Your task to perform on an android device: turn off javascript in the chrome app Image 0: 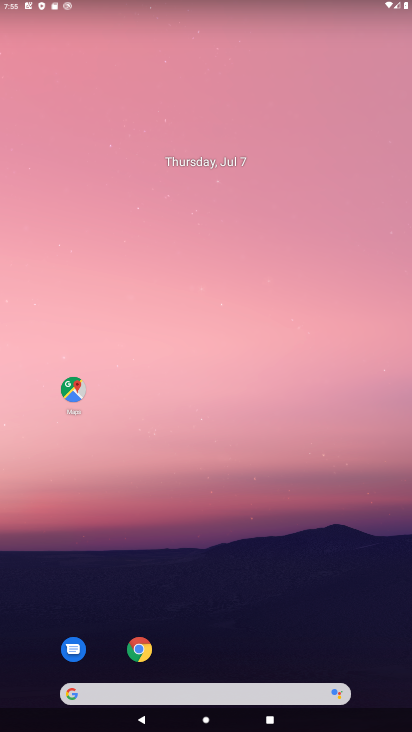
Step 0: click (187, 225)
Your task to perform on an android device: turn off javascript in the chrome app Image 1: 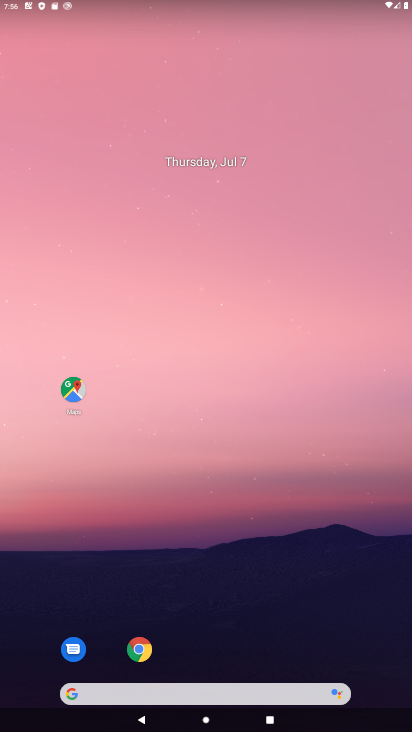
Step 1: drag from (220, 612) to (115, 128)
Your task to perform on an android device: turn off javascript in the chrome app Image 2: 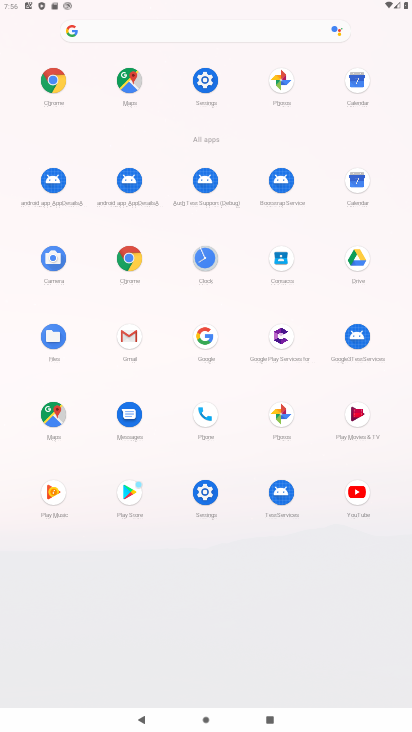
Step 2: click (131, 257)
Your task to perform on an android device: turn off javascript in the chrome app Image 3: 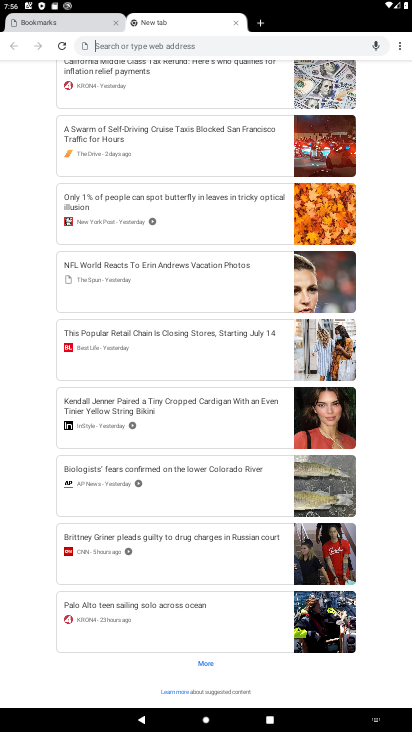
Step 3: drag from (205, 211) to (151, 572)
Your task to perform on an android device: turn off javascript in the chrome app Image 4: 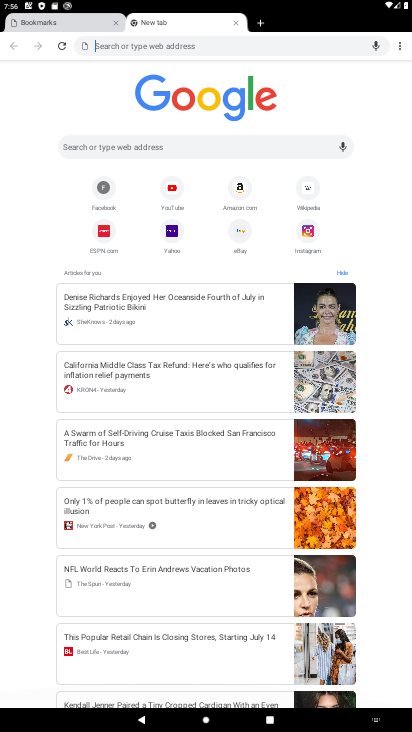
Step 4: drag from (150, 233) to (220, 671)
Your task to perform on an android device: turn off javascript in the chrome app Image 5: 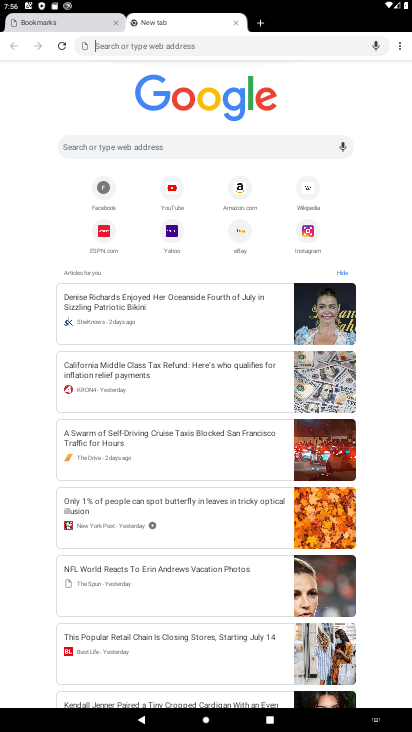
Step 5: drag from (227, 245) to (233, 639)
Your task to perform on an android device: turn off javascript in the chrome app Image 6: 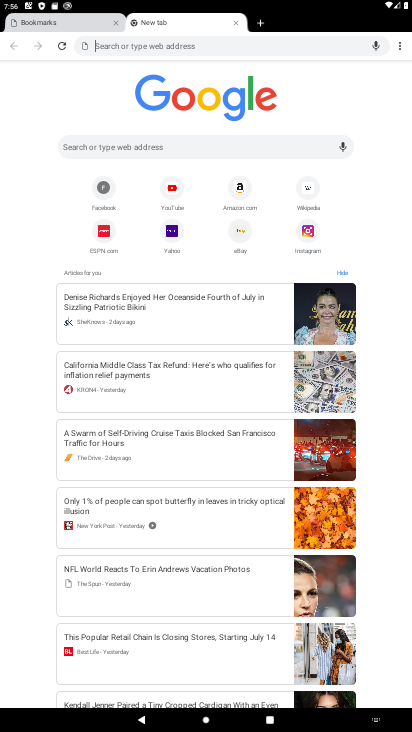
Step 6: drag from (401, 51) to (298, 211)
Your task to perform on an android device: turn off javascript in the chrome app Image 7: 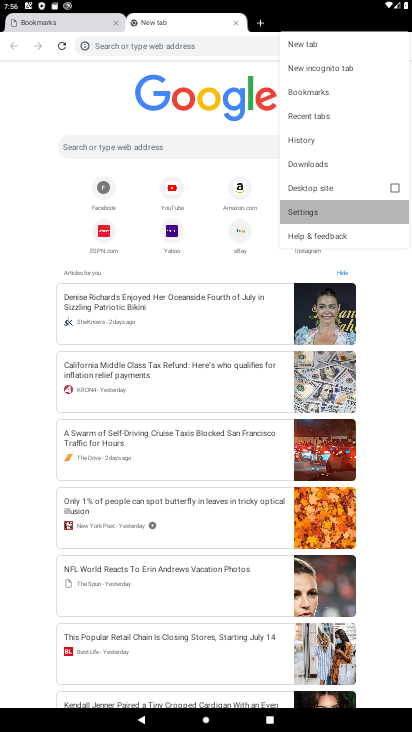
Step 7: click (297, 209)
Your task to perform on an android device: turn off javascript in the chrome app Image 8: 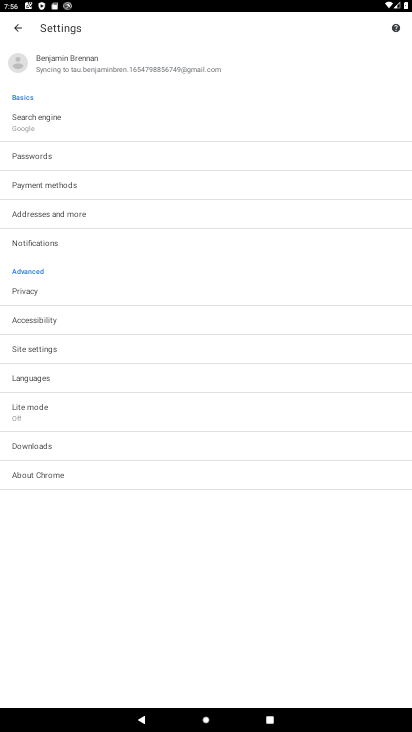
Step 8: click (30, 346)
Your task to perform on an android device: turn off javascript in the chrome app Image 9: 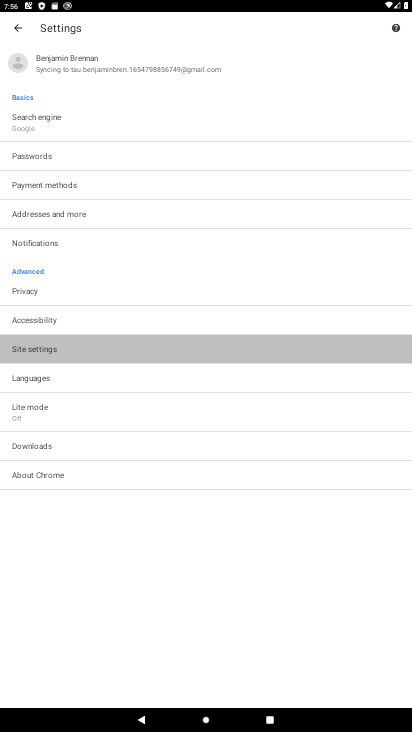
Step 9: click (29, 345)
Your task to perform on an android device: turn off javascript in the chrome app Image 10: 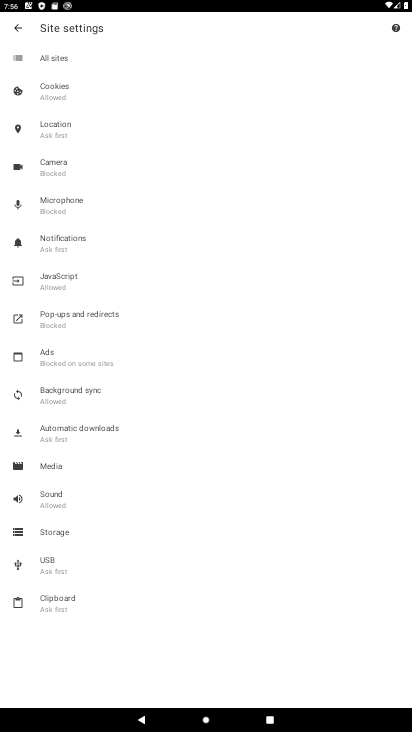
Step 10: click (53, 282)
Your task to perform on an android device: turn off javascript in the chrome app Image 11: 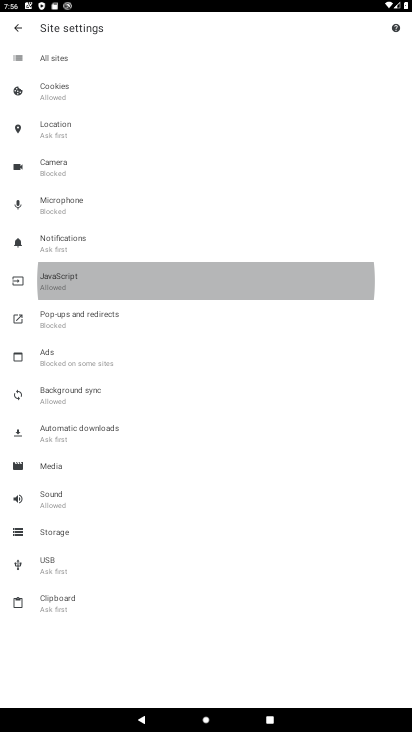
Step 11: click (51, 279)
Your task to perform on an android device: turn off javascript in the chrome app Image 12: 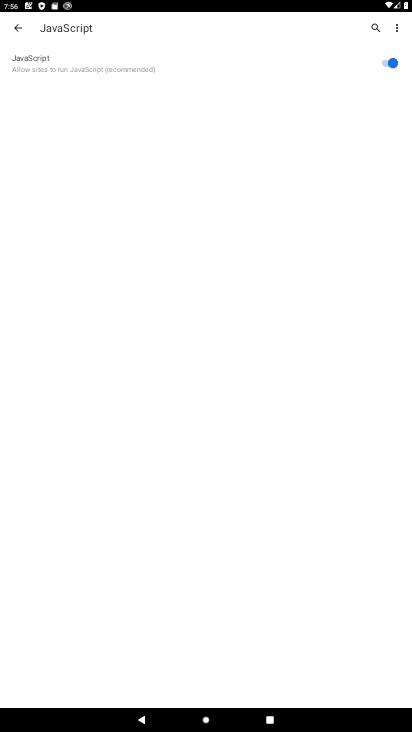
Step 12: click (397, 60)
Your task to perform on an android device: turn off javascript in the chrome app Image 13: 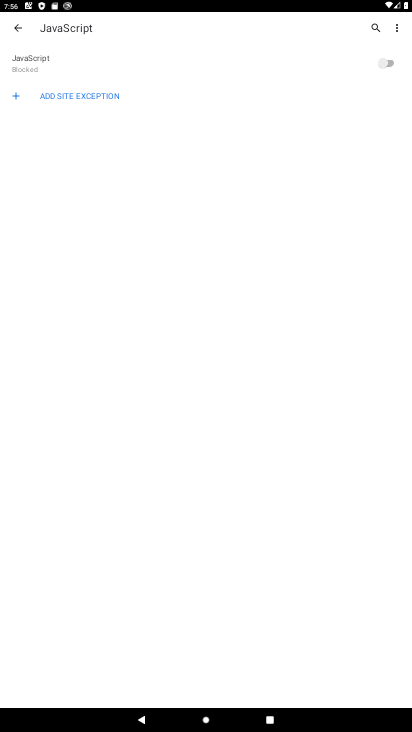
Step 13: task complete